Your task to perform on an android device: open a bookmark in the chrome app Image 0: 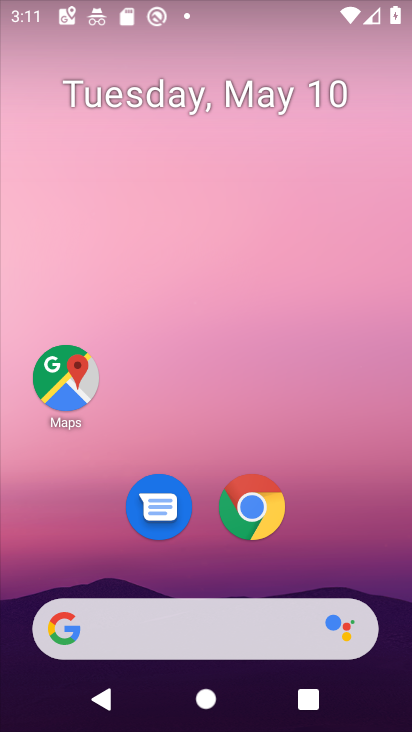
Step 0: click (244, 501)
Your task to perform on an android device: open a bookmark in the chrome app Image 1: 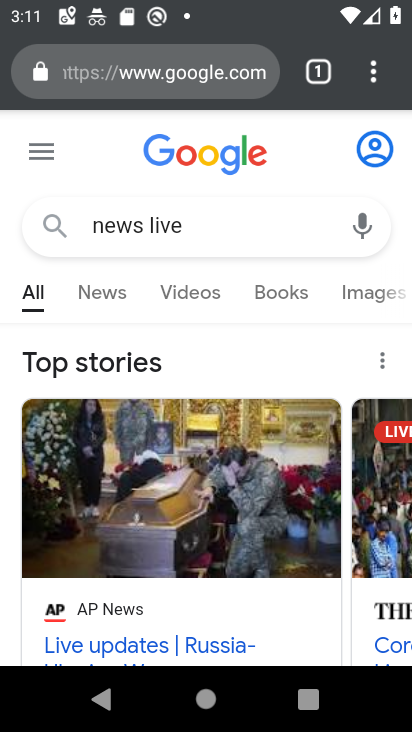
Step 1: click (374, 78)
Your task to perform on an android device: open a bookmark in the chrome app Image 2: 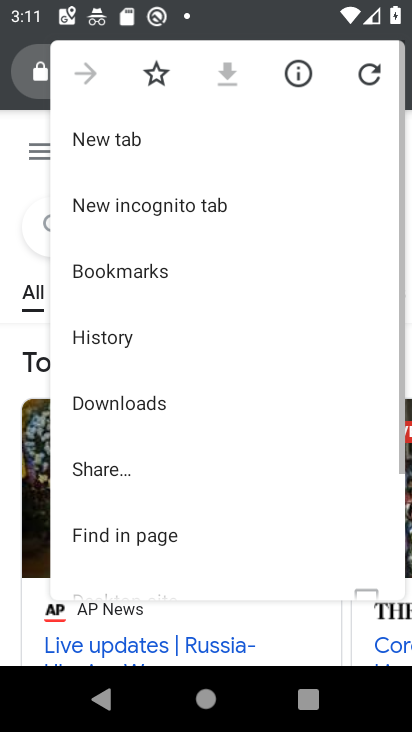
Step 2: click (126, 276)
Your task to perform on an android device: open a bookmark in the chrome app Image 3: 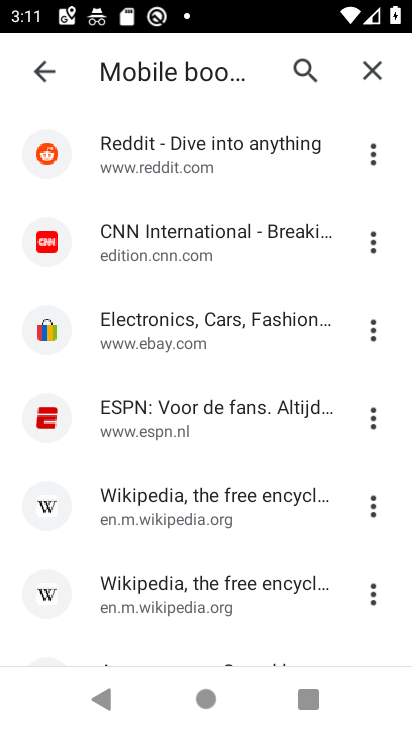
Step 3: task complete